Your task to perform on an android device: Open Reddit.com Image 0: 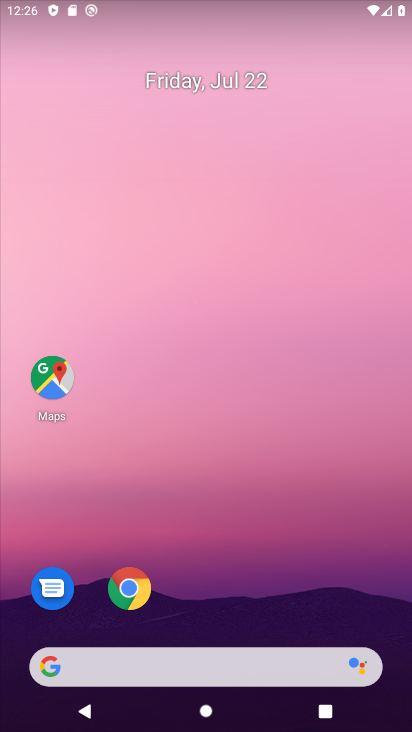
Step 0: drag from (200, 174) to (200, 122)
Your task to perform on an android device: Open Reddit.com Image 1: 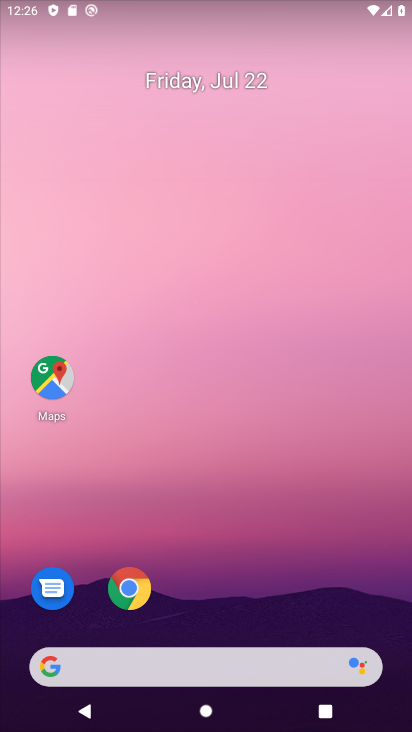
Step 1: drag from (206, 425) to (227, 100)
Your task to perform on an android device: Open Reddit.com Image 2: 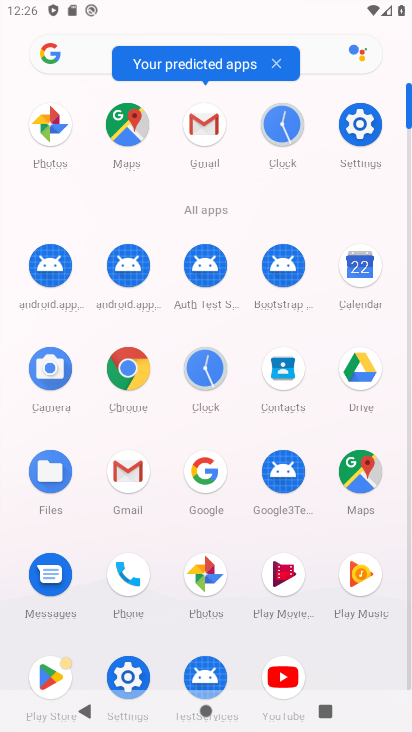
Step 2: click (201, 477)
Your task to perform on an android device: Open Reddit.com Image 3: 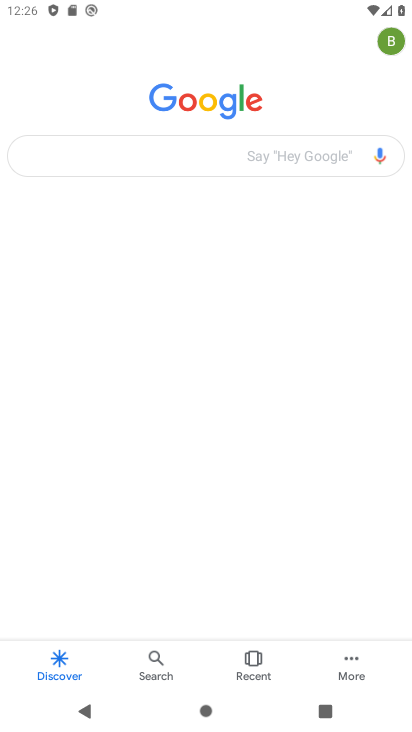
Step 3: click (163, 155)
Your task to perform on an android device: Open Reddit.com Image 4: 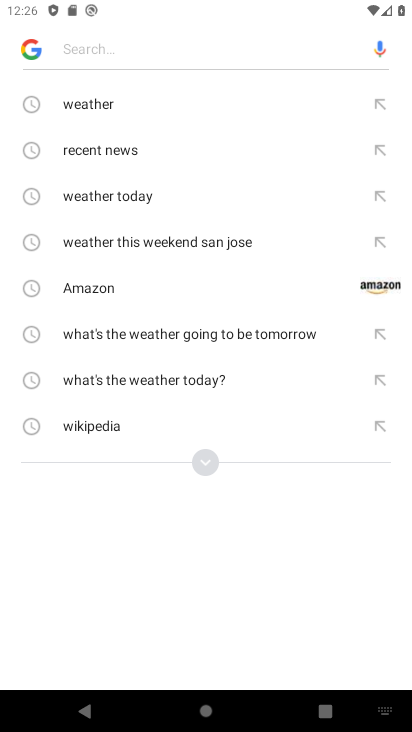
Step 4: click (206, 463)
Your task to perform on an android device: Open Reddit.com Image 5: 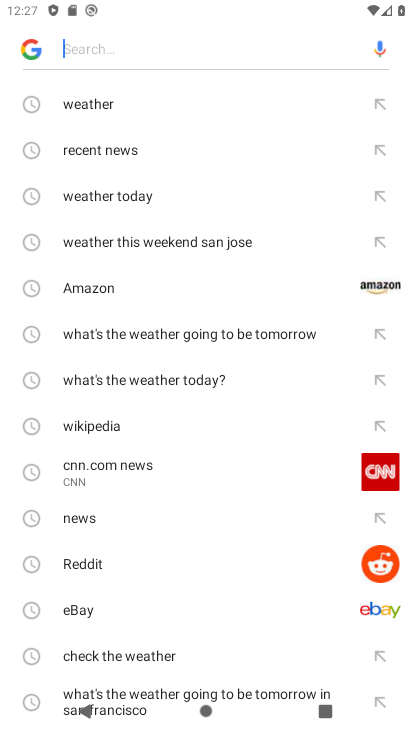
Step 5: click (88, 559)
Your task to perform on an android device: Open Reddit.com Image 6: 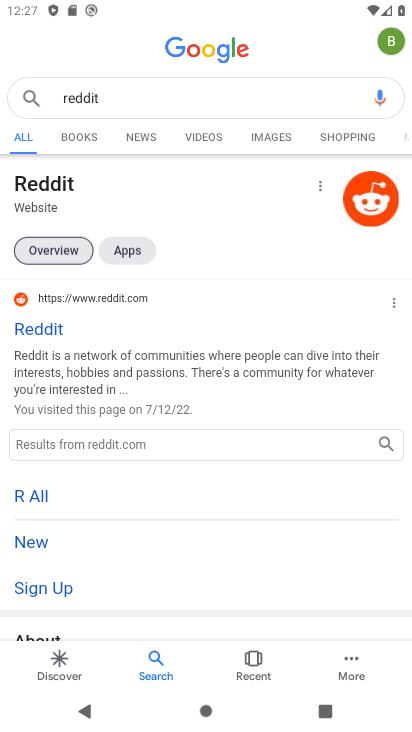
Step 6: task complete